Your task to perform on an android device: Go to settings Image 0: 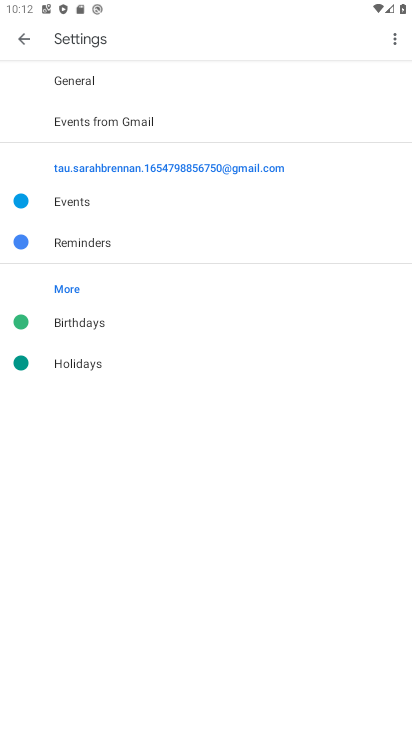
Step 0: press back button
Your task to perform on an android device: Go to settings Image 1: 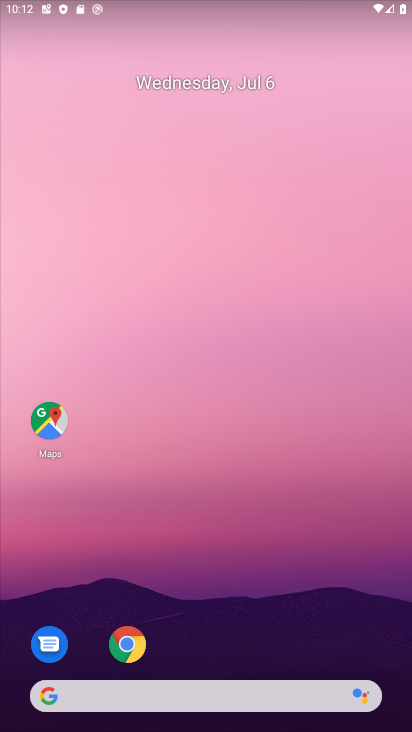
Step 1: drag from (62, 151) to (143, 120)
Your task to perform on an android device: Go to settings Image 2: 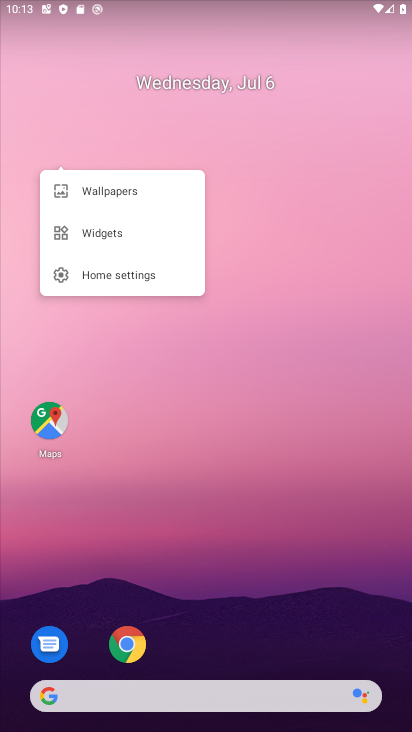
Step 2: click (131, 208)
Your task to perform on an android device: Go to settings Image 3: 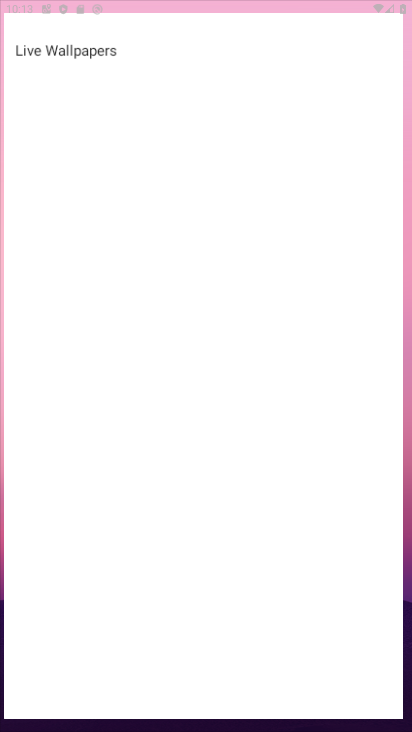
Step 3: drag from (194, 323) to (110, 24)
Your task to perform on an android device: Go to settings Image 4: 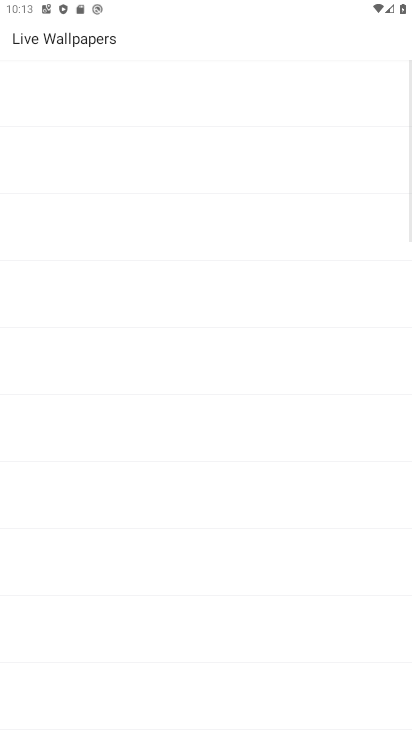
Step 4: drag from (146, 413) to (108, 134)
Your task to perform on an android device: Go to settings Image 5: 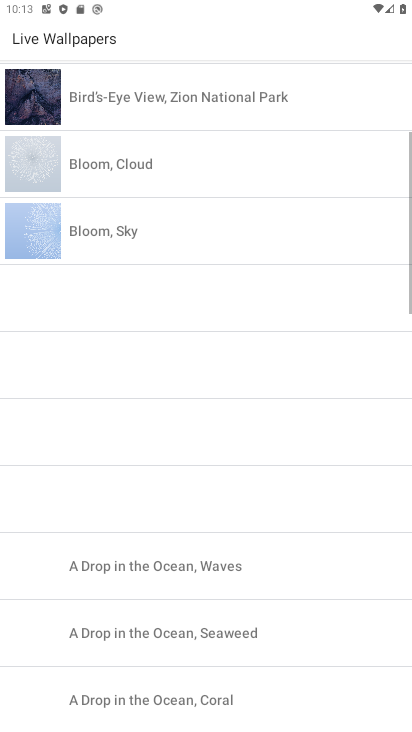
Step 5: drag from (224, 343) to (184, 58)
Your task to perform on an android device: Go to settings Image 6: 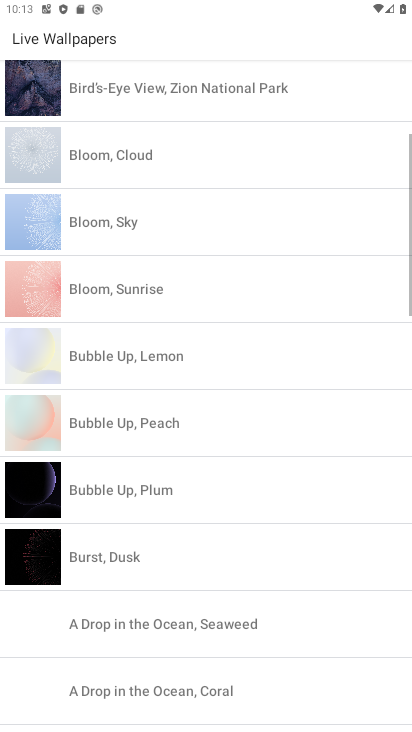
Step 6: drag from (274, 554) to (258, 490)
Your task to perform on an android device: Go to settings Image 7: 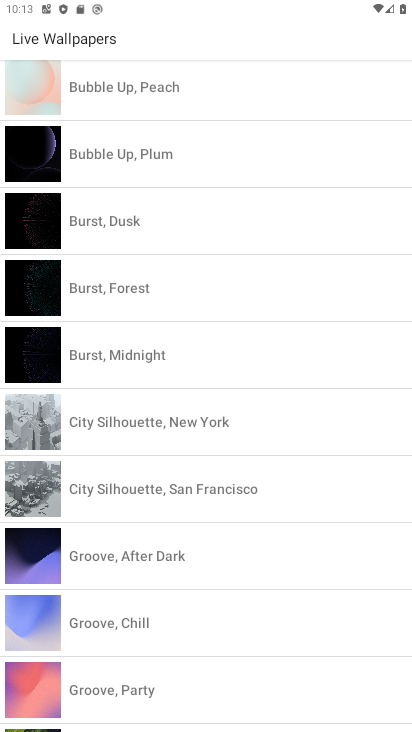
Step 7: press home button
Your task to perform on an android device: Go to settings Image 8: 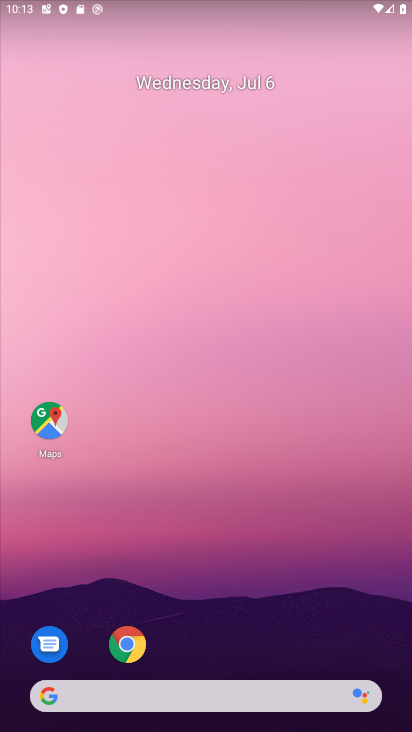
Step 8: drag from (189, 514) to (150, 250)
Your task to perform on an android device: Go to settings Image 9: 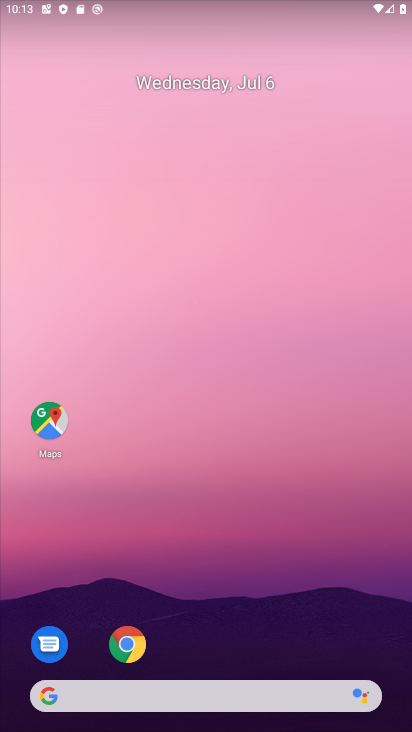
Step 9: drag from (181, 486) to (152, 82)
Your task to perform on an android device: Go to settings Image 10: 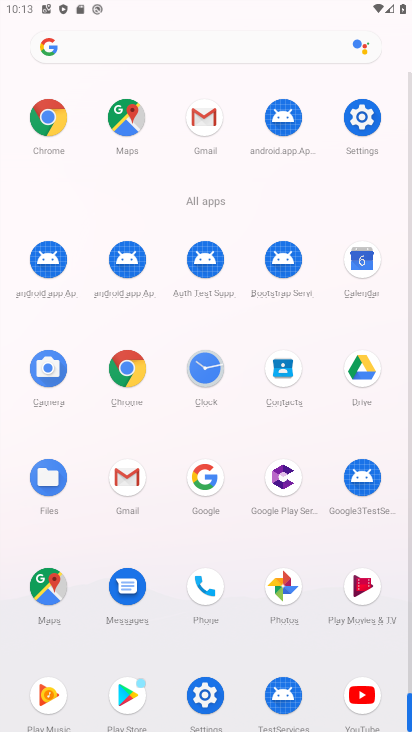
Step 10: drag from (191, 477) to (236, 341)
Your task to perform on an android device: Go to settings Image 11: 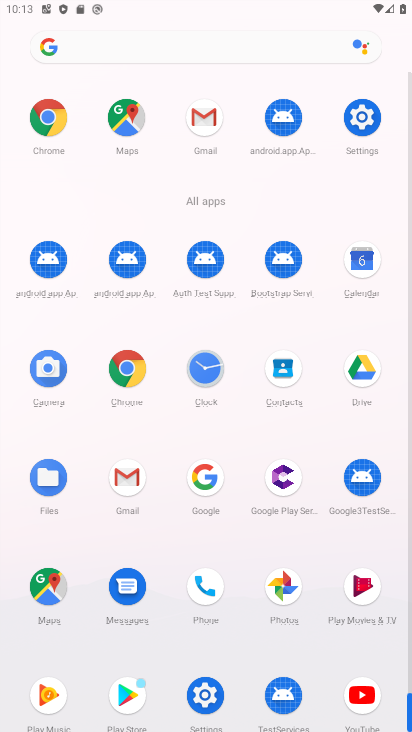
Step 11: click (362, 117)
Your task to perform on an android device: Go to settings Image 12: 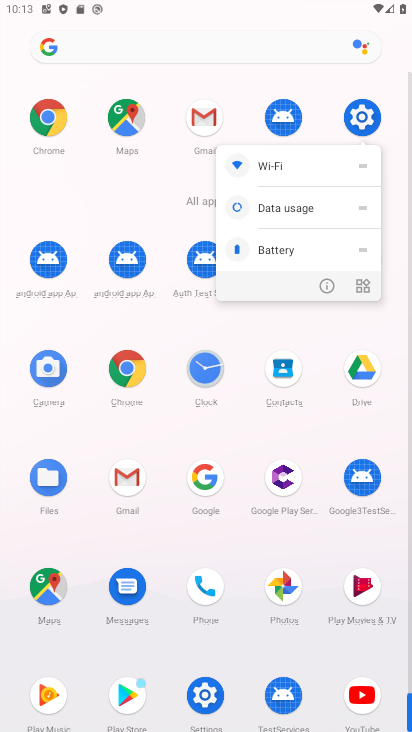
Step 12: click (360, 120)
Your task to perform on an android device: Go to settings Image 13: 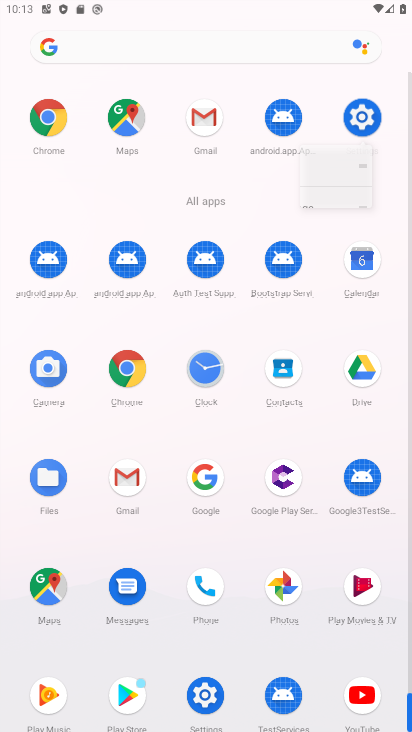
Step 13: click (360, 120)
Your task to perform on an android device: Go to settings Image 14: 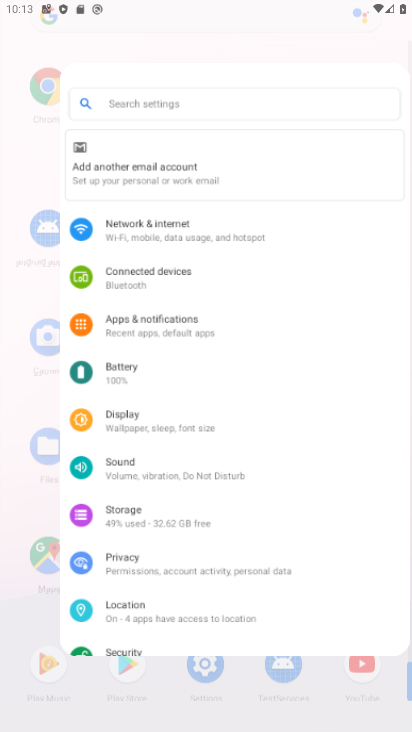
Step 14: click (360, 120)
Your task to perform on an android device: Go to settings Image 15: 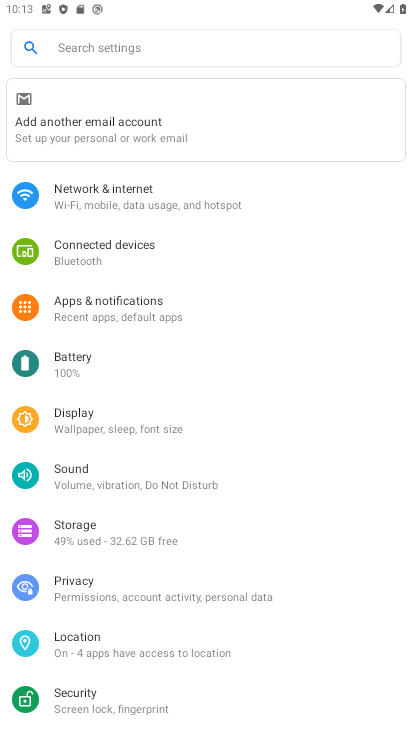
Step 15: task complete